Your task to perform on an android device: turn on the 24-hour format for clock Image 0: 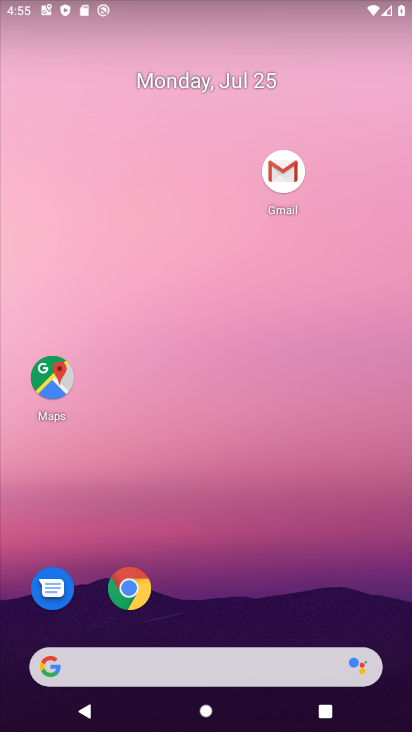
Step 0: drag from (247, 564) to (239, 3)
Your task to perform on an android device: turn on the 24-hour format for clock Image 1: 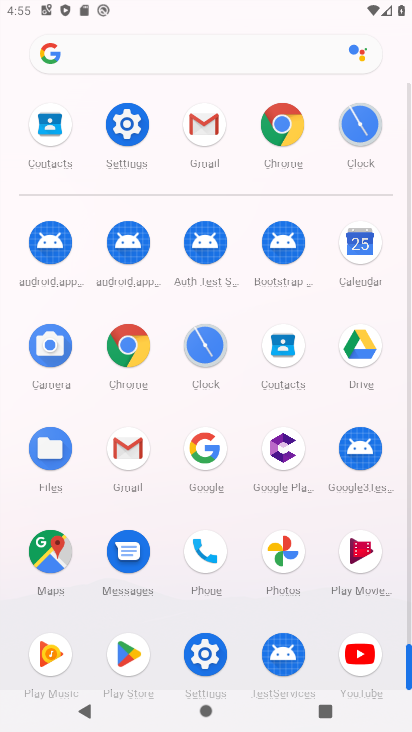
Step 1: click (208, 342)
Your task to perform on an android device: turn on the 24-hour format for clock Image 2: 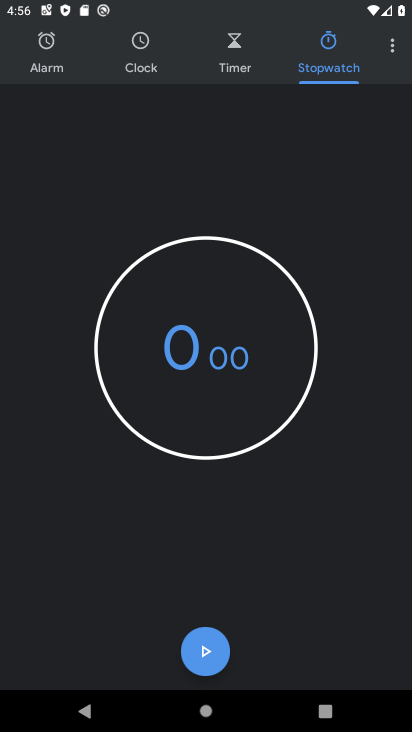
Step 2: click (390, 55)
Your task to perform on an android device: turn on the 24-hour format for clock Image 3: 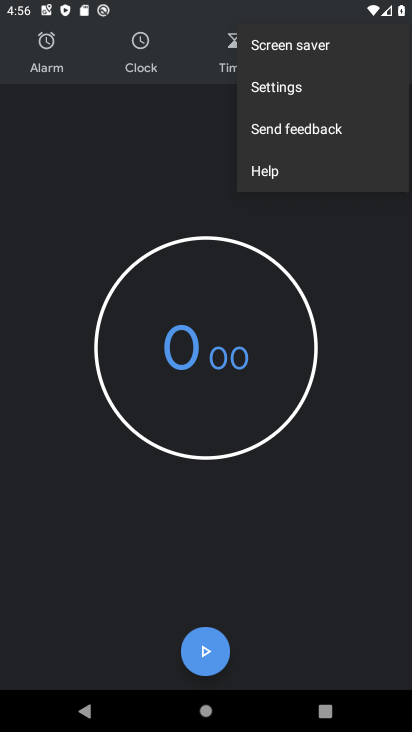
Step 3: click (290, 89)
Your task to perform on an android device: turn on the 24-hour format for clock Image 4: 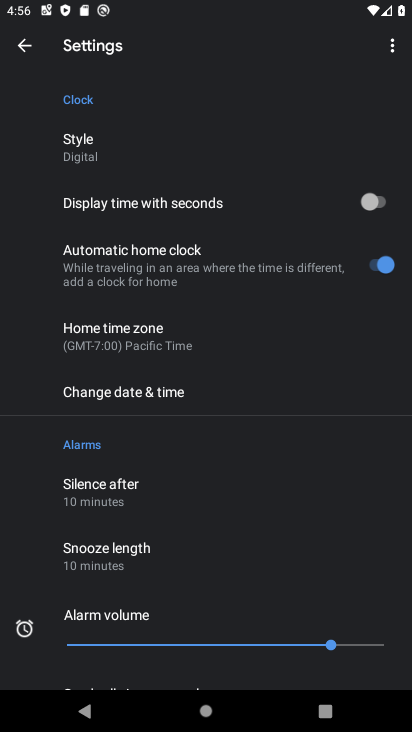
Step 4: click (183, 390)
Your task to perform on an android device: turn on the 24-hour format for clock Image 5: 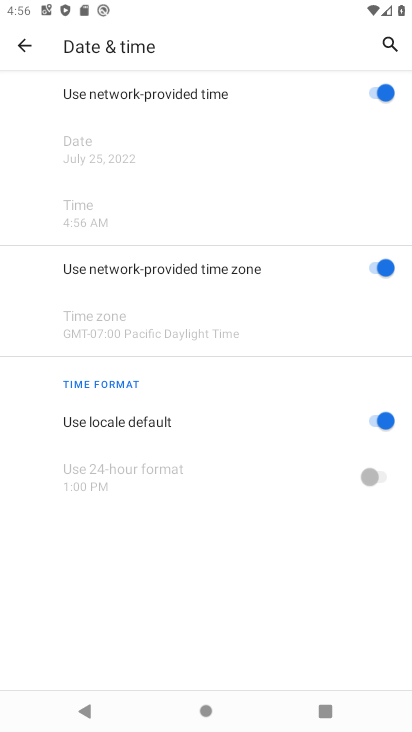
Step 5: click (382, 469)
Your task to perform on an android device: turn on the 24-hour format for clock Image 6: 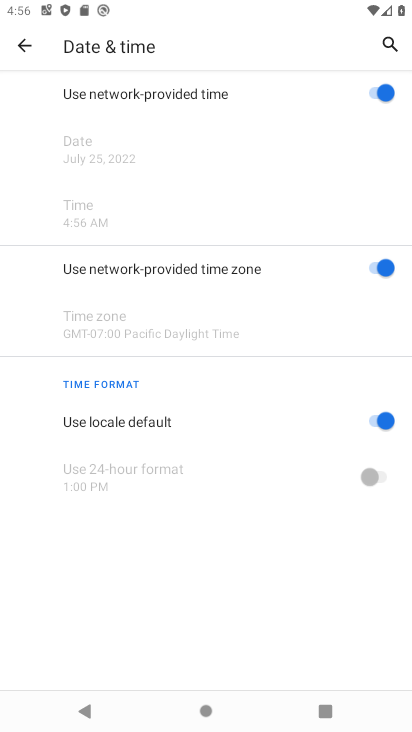
Step 6: click (374, 471)
Your task to perform on an android device: turn on the 24-hour format for clock Image 7: 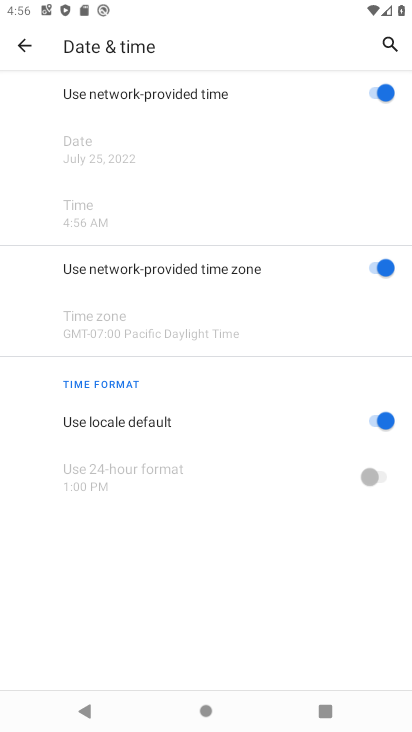
Step 7: click (383, 420)
Your task to perform on an android device: turn on the 24-hour format for clock Image 8: 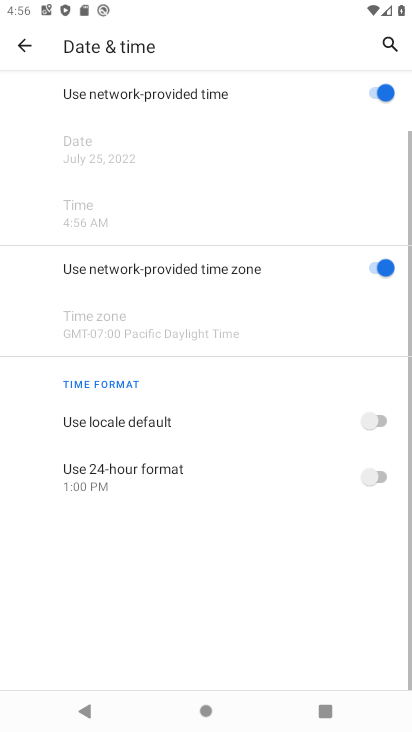
Step 8: click (380, 476)
Your task to perform on an android device: turn on the 24-hour format for clock Image 9: 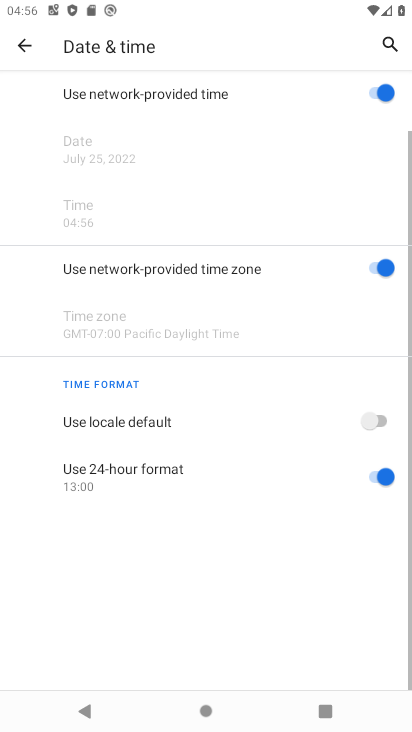
Step 9: task complete